Your task to perform on an android device: open a bookmark in the chrome app Image 0: 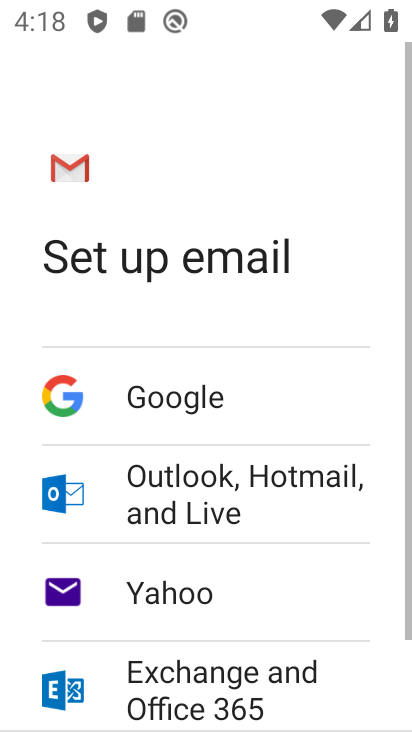
Step 0: press home button
Your task to perform on an android device: open a bookmark in the chrome app Image 1: 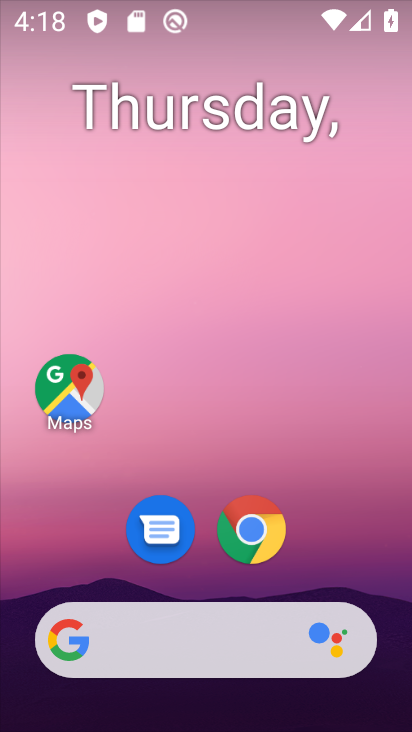
Step 1: click (257, 540)
Your task to perform on an android device: open a bookmark in the chrome app Image 2: 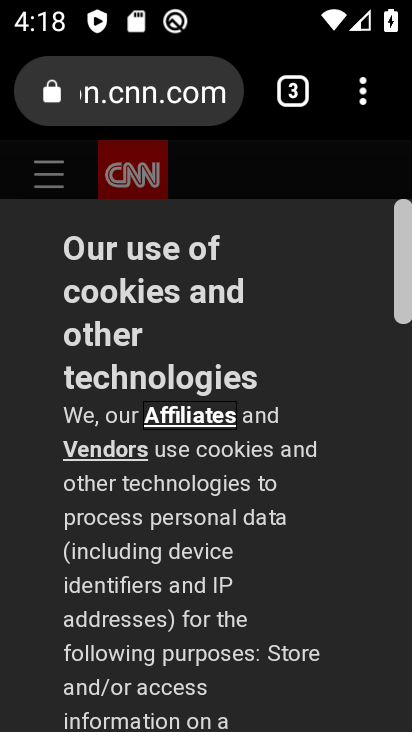
Step 2: click (364, 106)
Your task to perform on an android device: open a bookmark in the chrome app Image 3: 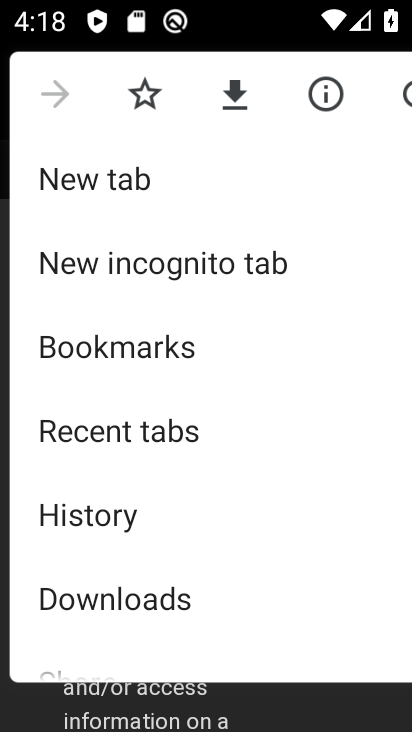
Step 3: drag from (128, 545) to (128, 279)
Your task to perform on an android device: open a bookmark in the chrome app Image 4: 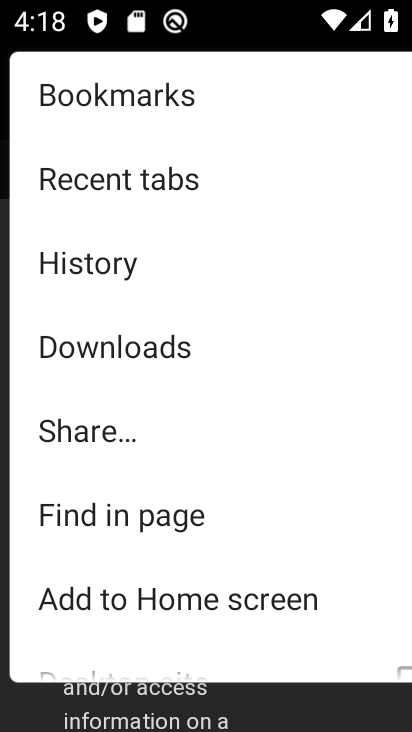
Step 4: click (127, 103)
Your task to perform on an android device: open a bookmark in the chrome app Image 5: 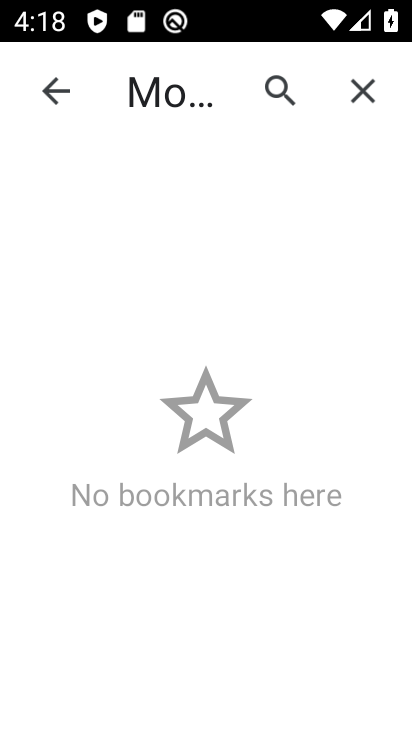
Step 5: task complete